Your task to perform on an android device: What's the weather? Image 0: 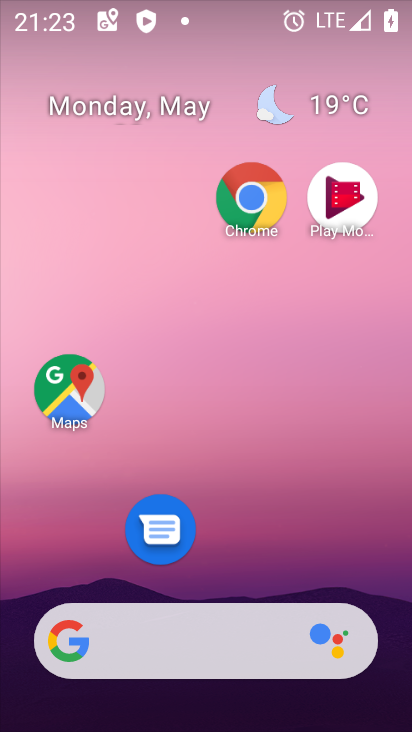
Step 0: click (215, 633)
Your task to perform on an android device: What's the weather? Image 1: 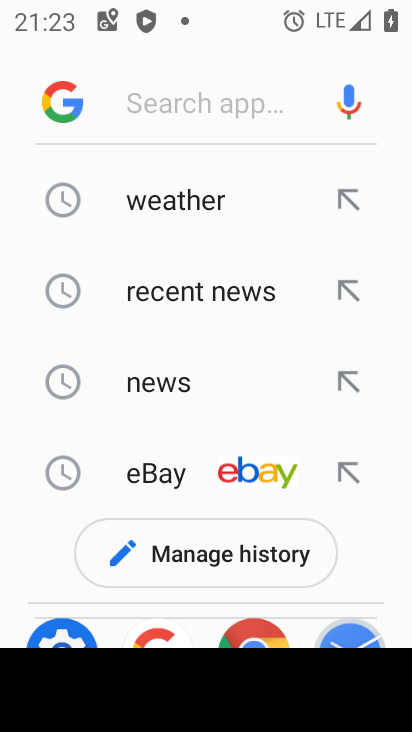
Step 1: click (167, 220)
Your task to perform on an android device: What's the weather? Image 2: 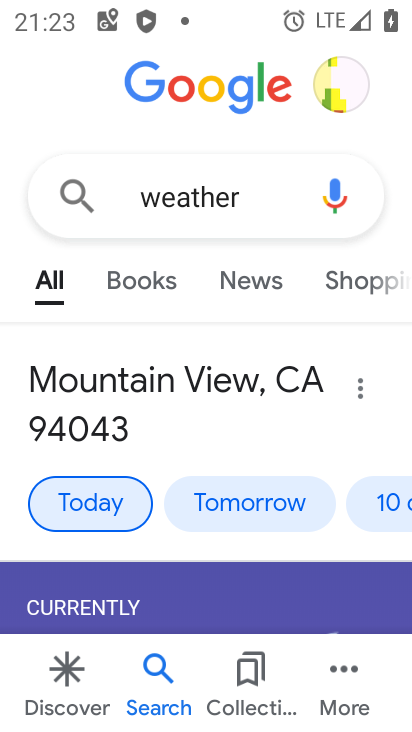
Step 2: task complete